Your task to perform on an android device: Go to network settings Image 0: 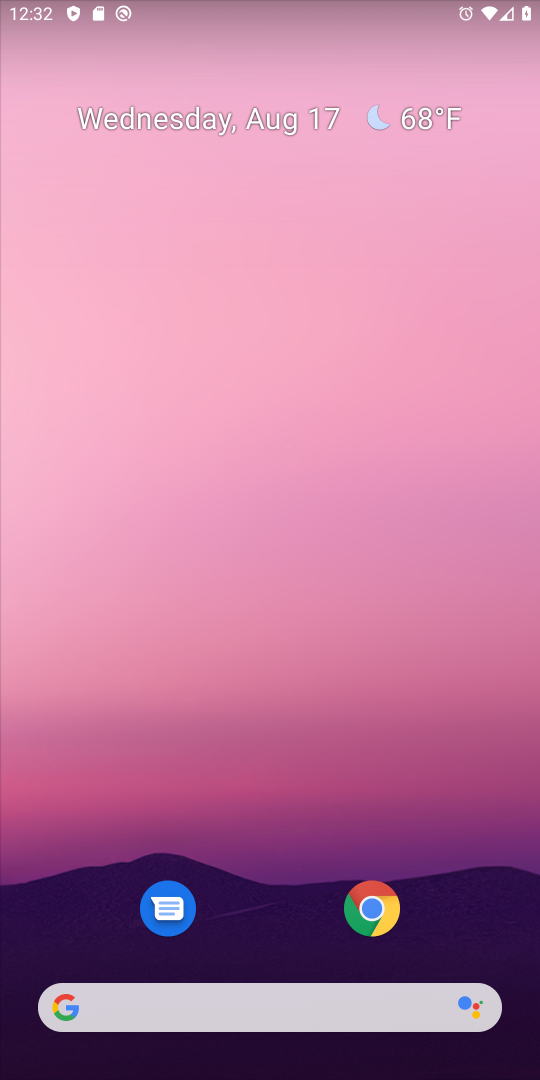
Step 0: drag from (268, 881) to (268, 286)
Your task to perform on an android device: Go to network settings Image 1: 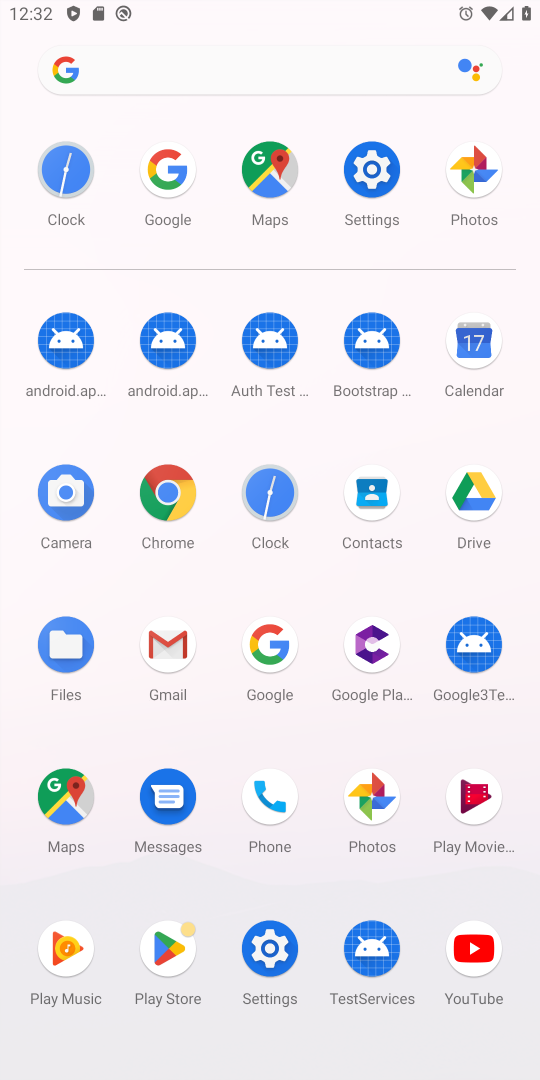
Step 1: click (354, 181)
Your task to perform on an android device: Go to network settings Image 2: 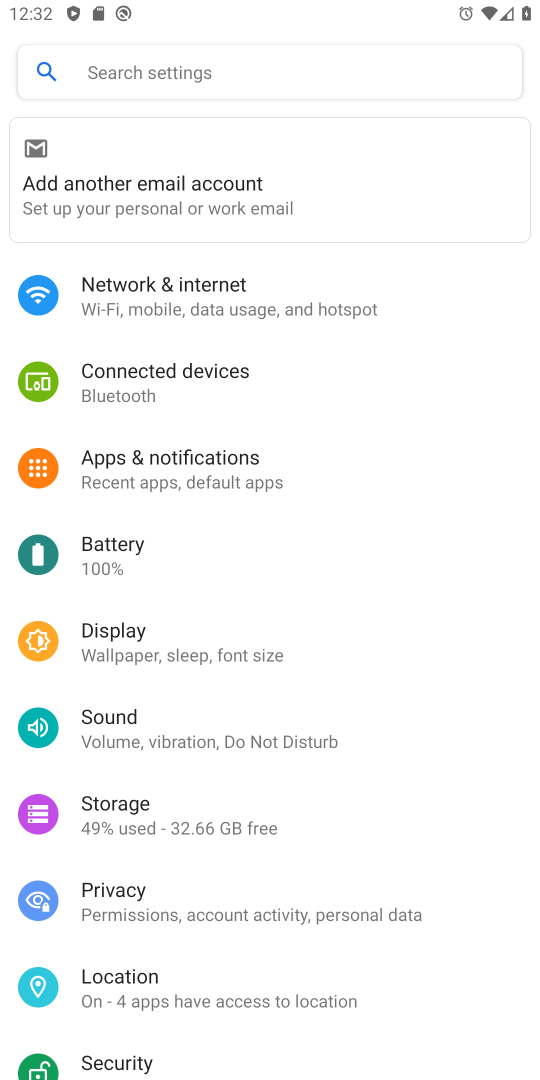
Step 2: click (197, 281)
Your task to perform on an android device: Go to network settings Image 3: 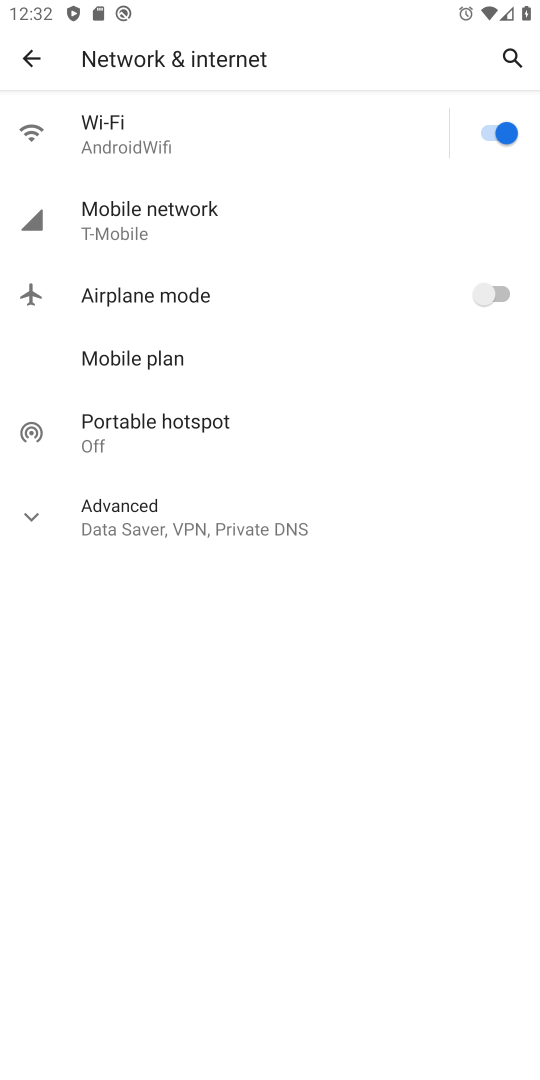
Step 3: task complete